Your task to perform on an android device: Go to eBay Image 0: 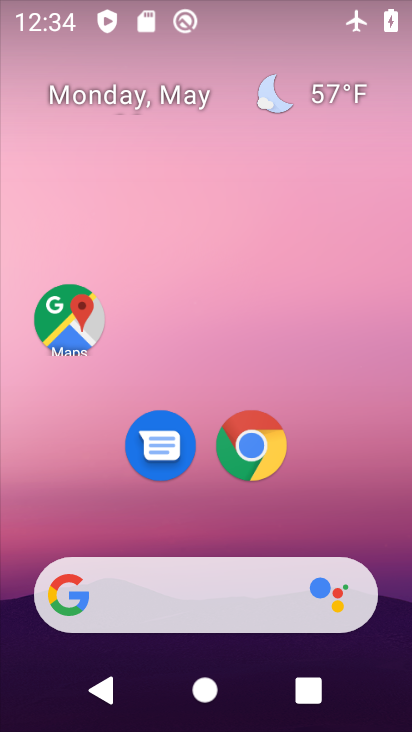
Step 0: drag from (382, 619) to (302, 48)
Your task to perform on an android device: Go to eBay Image 1: 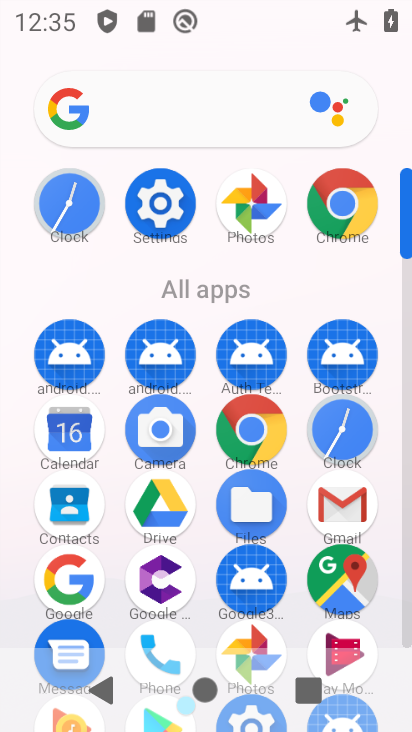
Step 1: click (329, 222)
Your task to perform on an android device: Go to eBay Image 2: 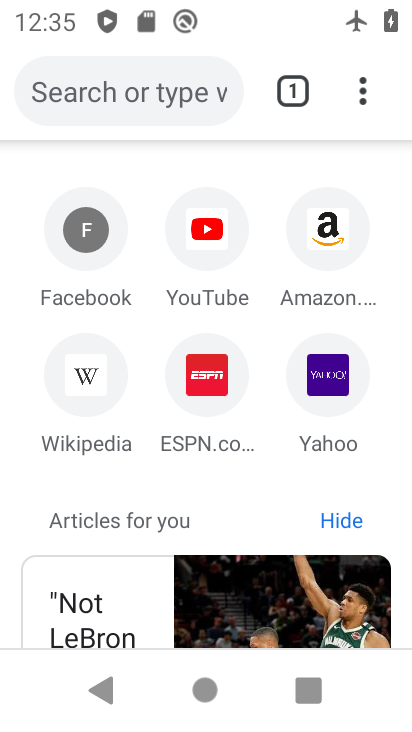
Step 2: click (104, 95)
Your task to perform on an android device: Go to eBay Image 3: 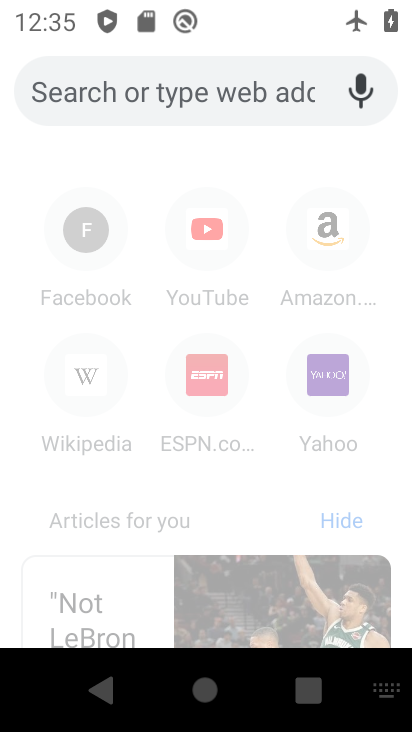
Step 3: type "ebay"
Your task to perform on an android device: Go to eBay Image 4: 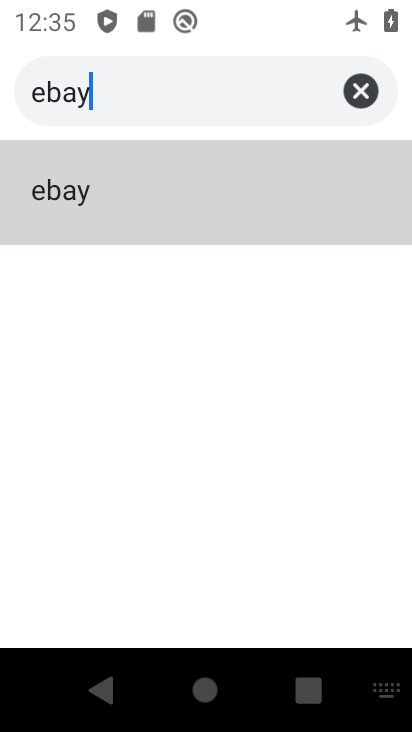
Step 4: click (175, 182)
Your task to perform on an android device: Go to eBay Image 5: 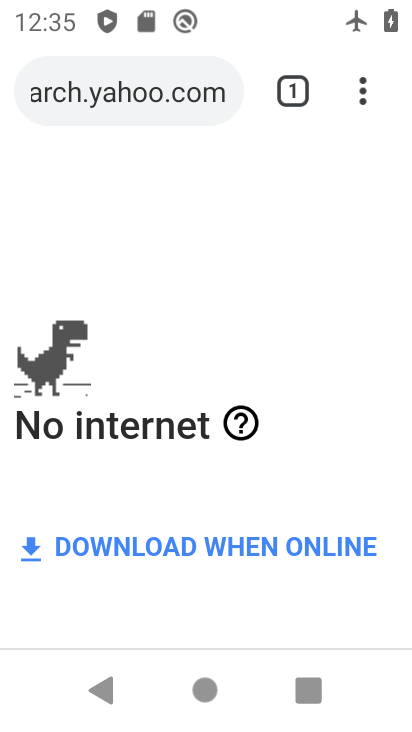
Step 5: task complete